Your task to perform on an android device: Open Maps and search for coffee Image 0: 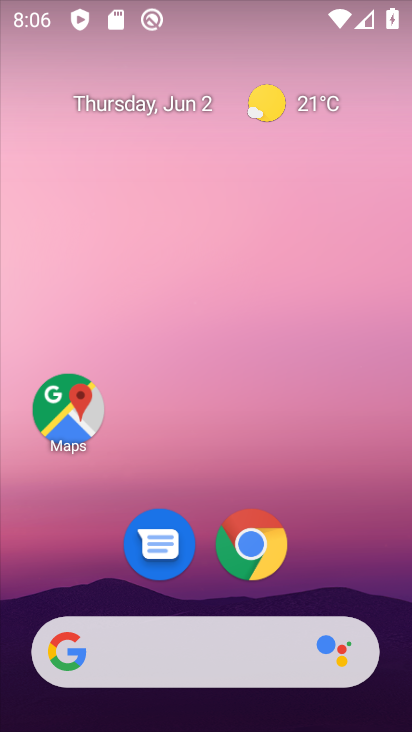
Step 0: click (81, 426)
Your task to perform on an android device: Open Maps and search for coffee Image 1: 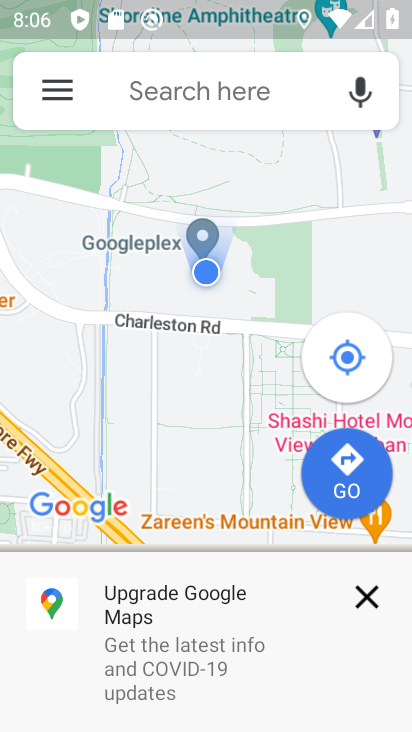
Step 1: click (159, 92)
Your task to perform on an android device: Open Maps and search for coffee Image 2: 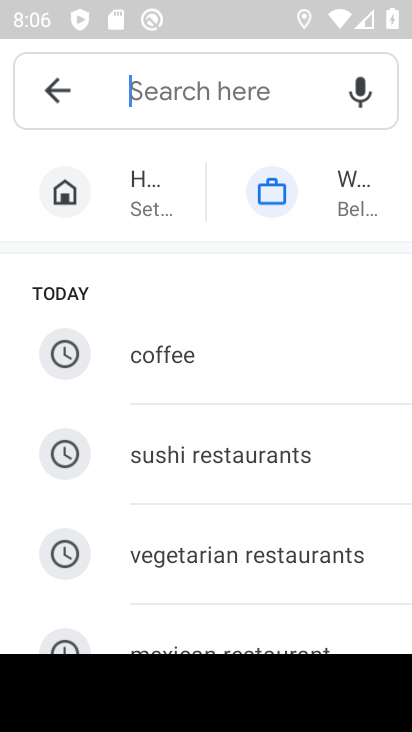
Step 2: click (165, 367)
Your task to perform on an android device: Open Maps and search for coffee Image 3: 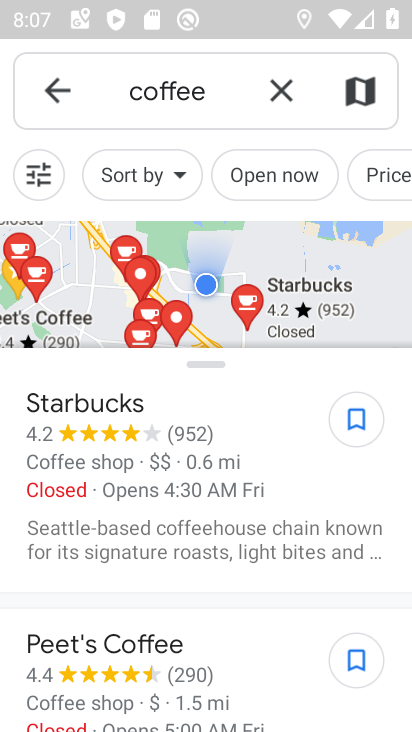
Step 3: task complete